Your task to perform on an android device: move a message to another label in the gmail app Image 0: 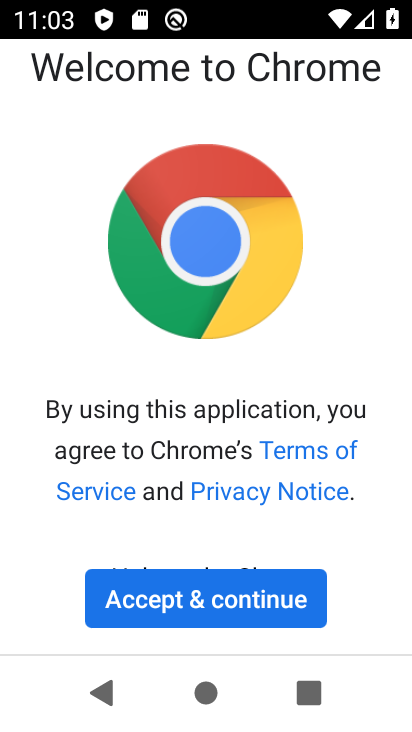
Step 0: click (246, 605)
Your task to perform on an android device: move a message to another label in the gmail app Image 1: 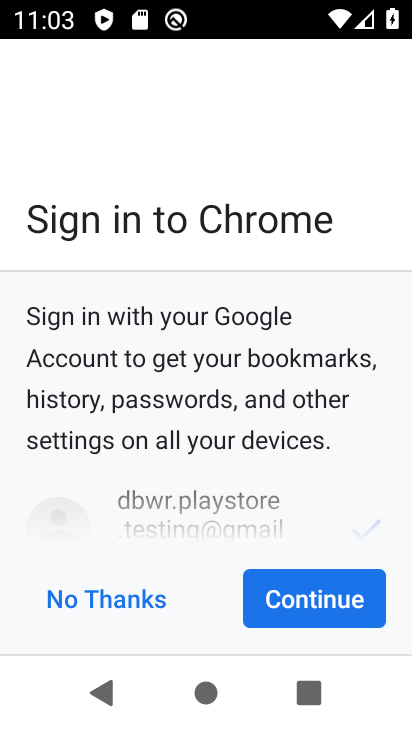
Step 1: press home button
Your task to perform on an android device: move a message to another label in the gmail app Image 2: 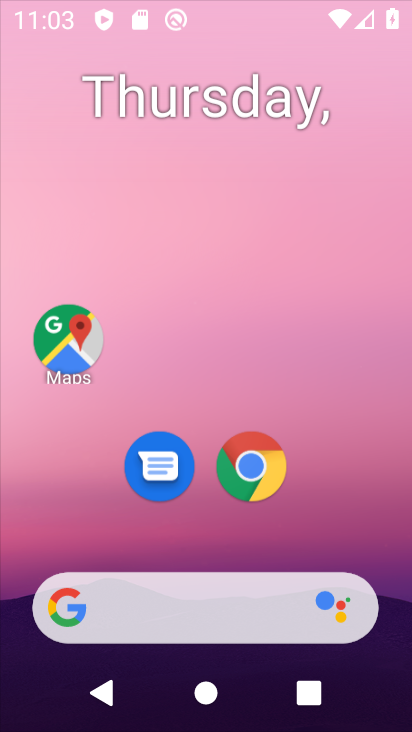
Step 2: drag from (208, 608) to (368, 123)
Your task to perform on an android device: move a message to another label in the gmail app Image 3: 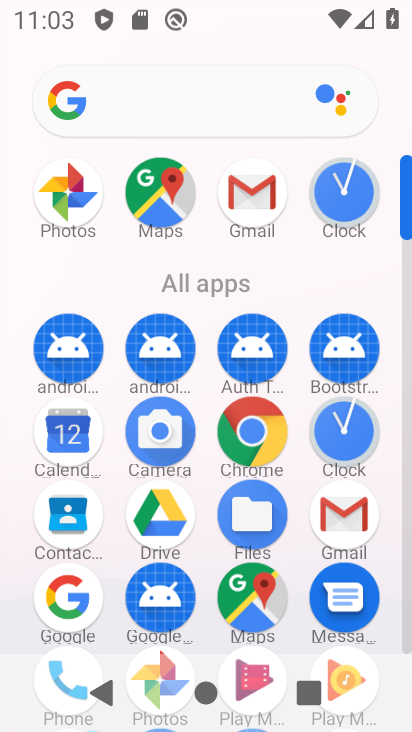
Step 3: click (269, 213)
Your task to perform on an android device: move a message to another label in the gmail app Image 4: 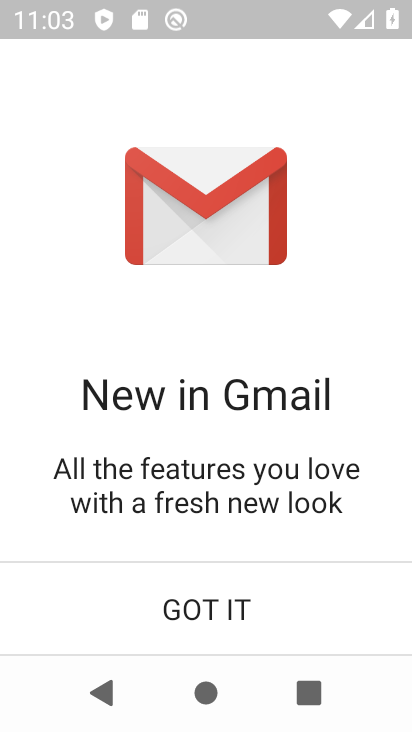
Step 4: click (184, 599)
Your task to perform on an android device: move a message to another label in the gmail app Image 5: 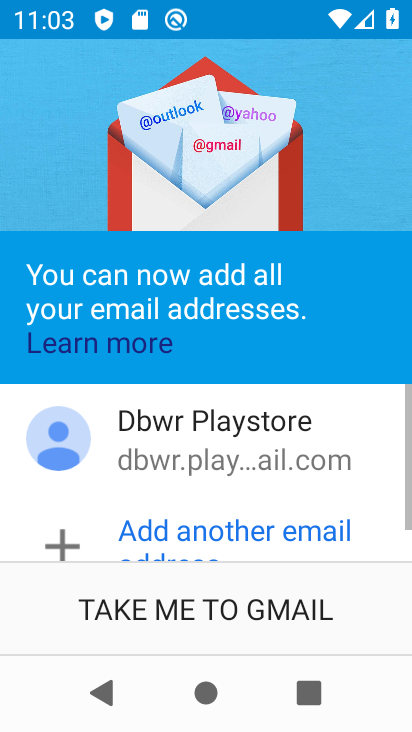
Step 5: click (263, 634)
Your task to perform on an android device: move a message to another label in the gmail app Image 6: 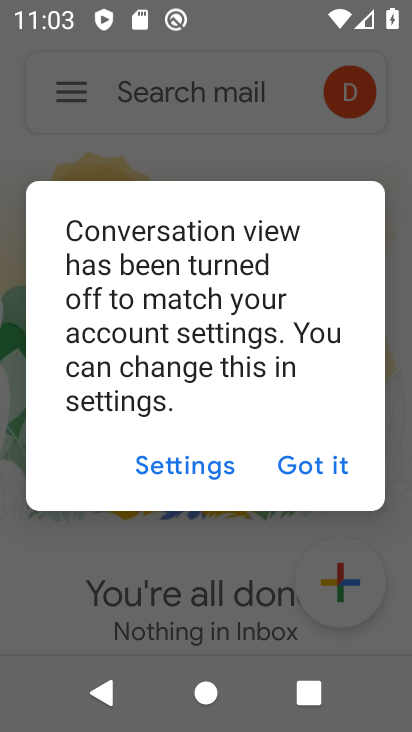
Step 6: click (328, 488)
Your task to perform on an android device: move a message to another label in the gmail app Image 7: 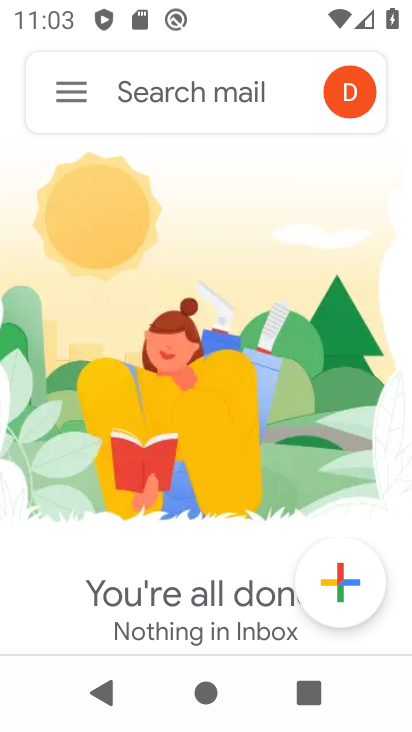
Step 7: task complete